Your task to perform on an android device: see tabs open on other devices in the chrome app Image 0: 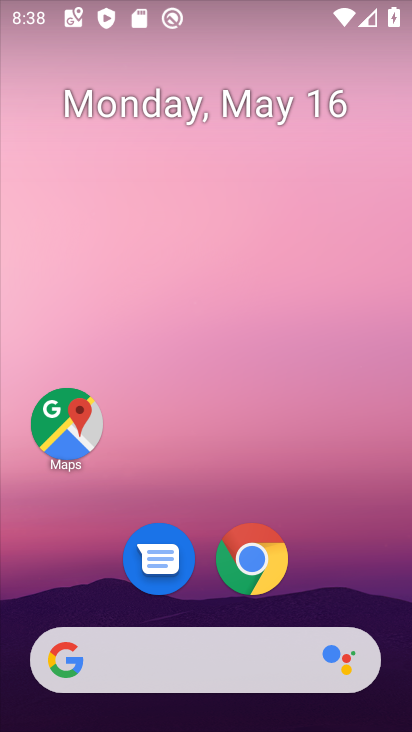
Step 0: click (230, 555)
Your task to perform on an android device: see tabs open on other devices in the chrome app Image 1: 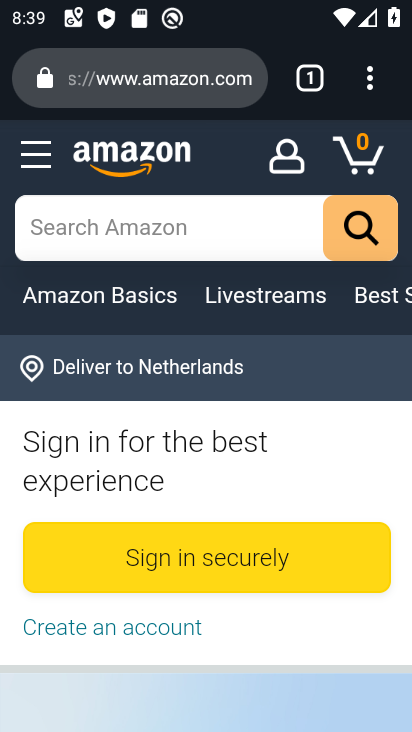
Step 1: click (364, 78)
Your task to perform on an android device: see tabs open on other devices in the chrome app Image 2: 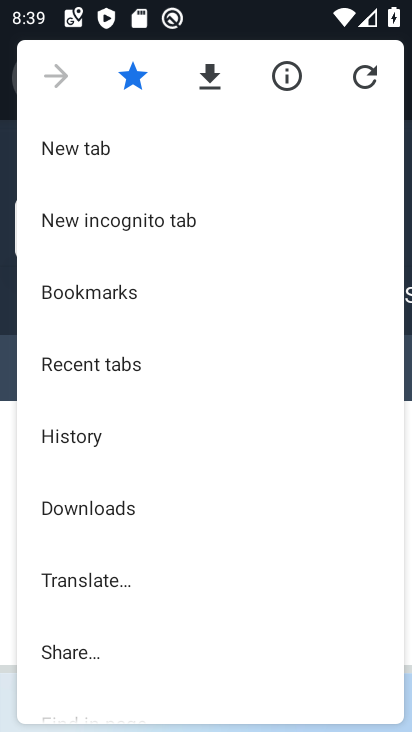
Step 2: click (79, 367)
Your task to perform on an android device: see tabs open on other devices in the chrome app Image 3: 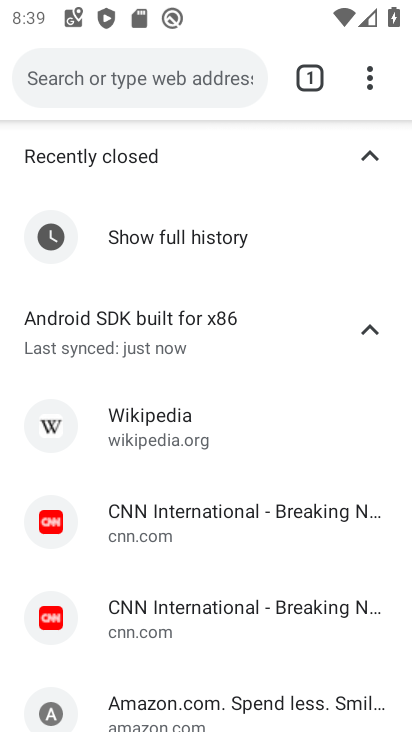
Step 3: task complete